Your task to perform on an android device: Set the phone to "Do not disturb". Image 0: 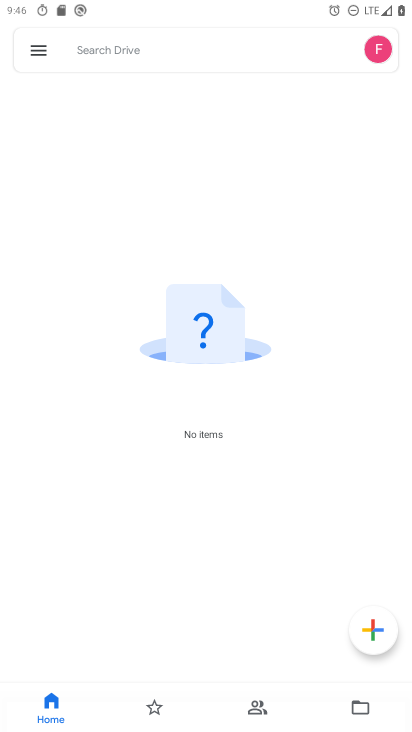
Step 0: press home button
Your task to perform on an android device: Set the phone to "Do not disturb". Image 1: 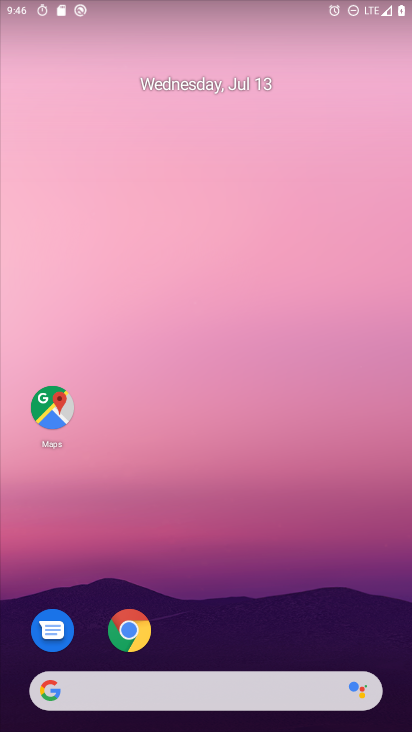
Step 1: task complete